Your task to perform on an android device: search for starred emails in the gmail app Image 0: 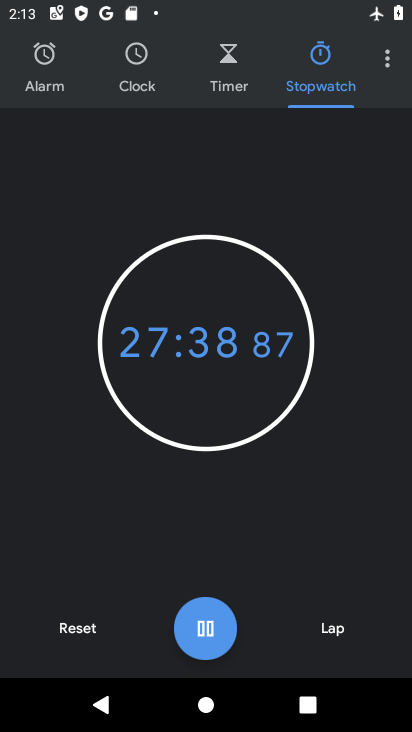
Step 0: press home button
Your task to perform on an android device: search for starred emails in the gmail app Image 1: 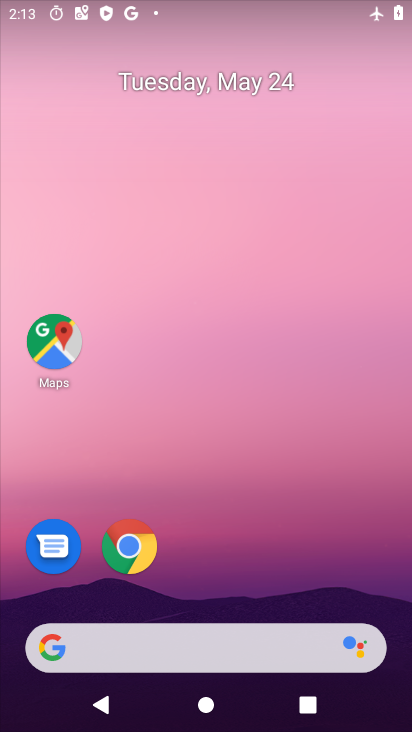
Step 1: drag from (210, 653) to (230, 146)
Your task to perform on an android device: search for starred emails in the gmail app Image 2: 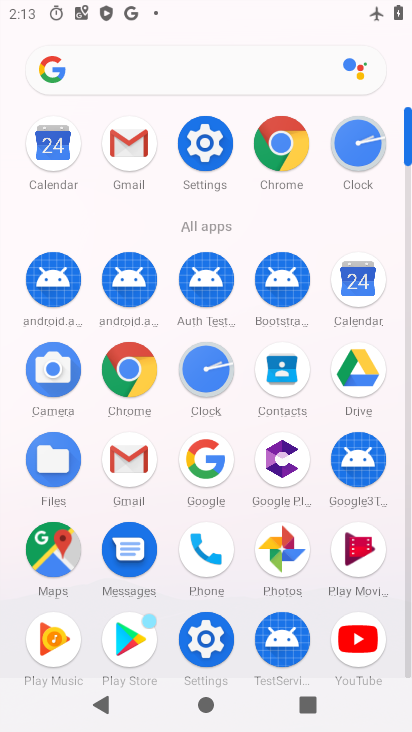
Step 2: click (127, 465)
Your task to perform on an android device: search for starred emails in the gmail app Image 3: 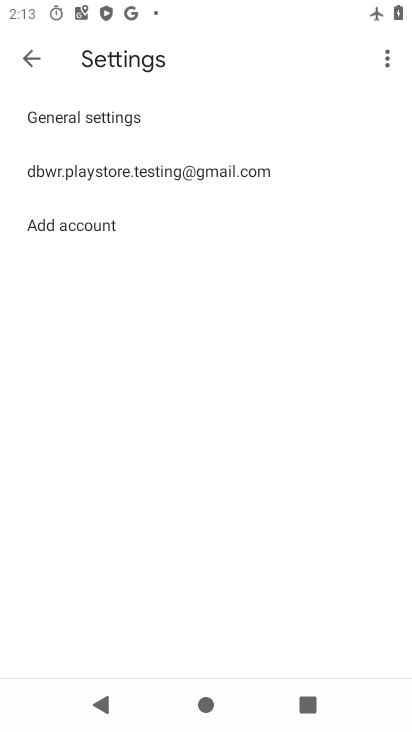
Step 3: click (32, 62)
Your task to perform on an android device: search for starred emails in the gmail app Image 4: 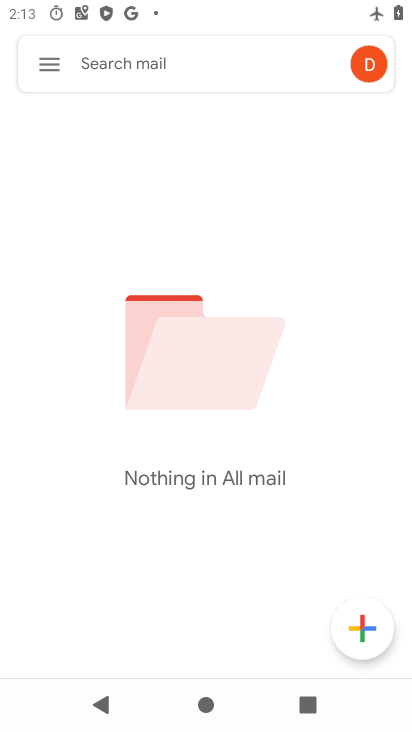
Step 4: click (32, 62)
Your task to perform on an android device: search for starred emails in the gmail app Image 5: 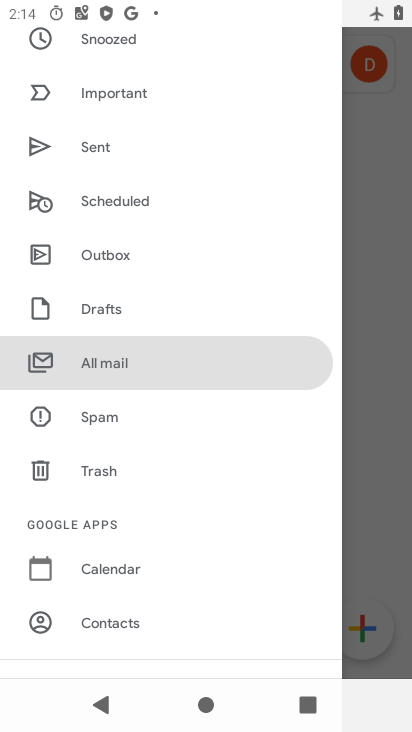
Step 5: drag from (103, 118) to (111, 397)
Your task to perform on an android device: search for starred emails in the gmail app Image 6: 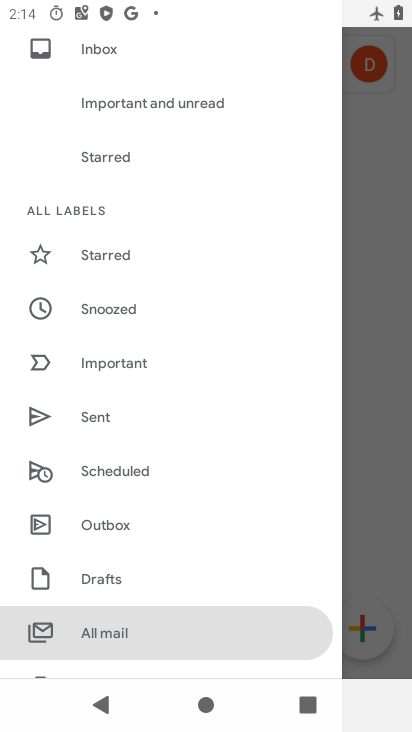
Step 6: click (104, 109)
Your task to perform on an android device: search for starred emails in the gmail app Image 7: 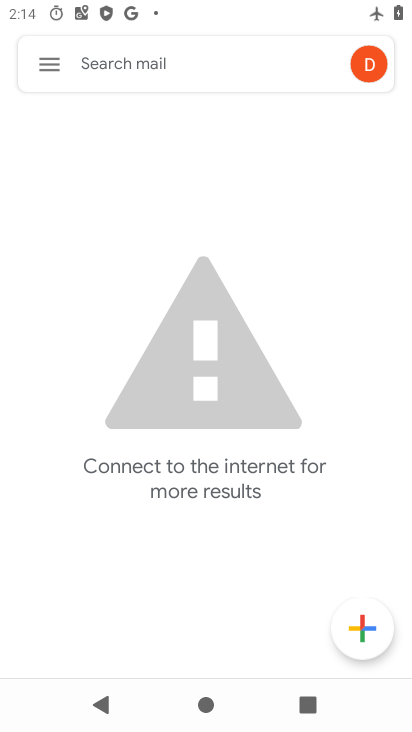
Step 7: task complete